Your task to perform on an android device: turn on airplane mode Image 0: 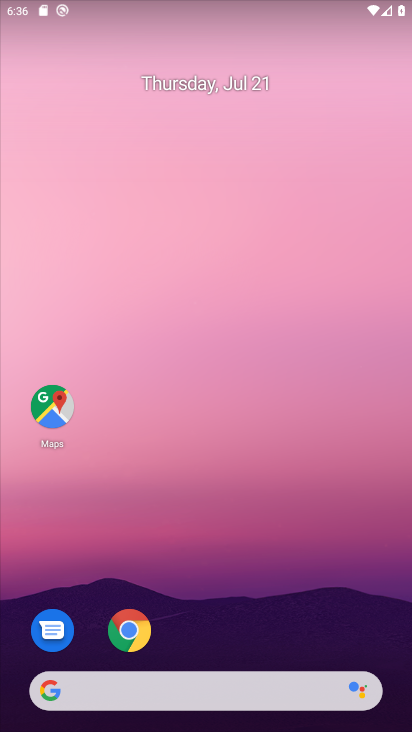
Step 0: drag from (196, 700) to (233, 214)
Your task to perform on an android device: turn on airplane mode Image 1: 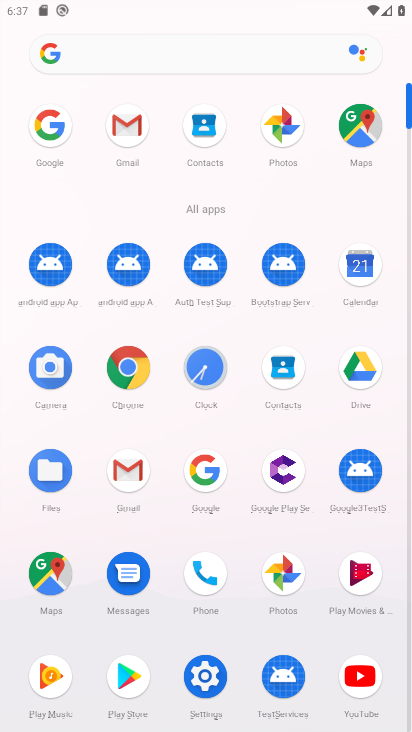
Step 1: drag from (241, 553) to (230, 335)
Your task to perform on an android device: turn on airplane mode Image 2: 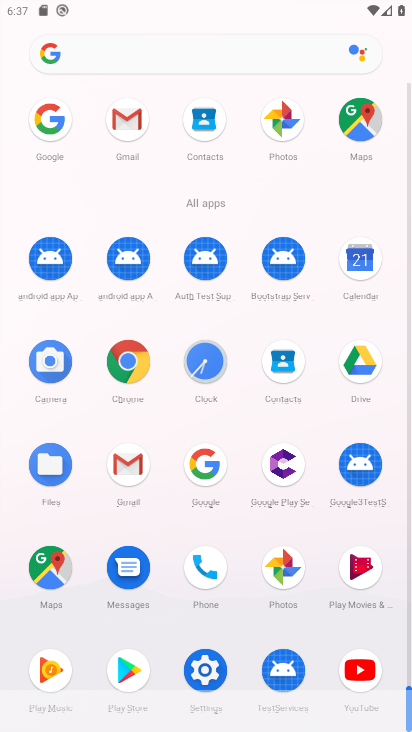
Step 2: click (206, 670)
Your task to perform on an android device: turn on airplane mode Image 3: 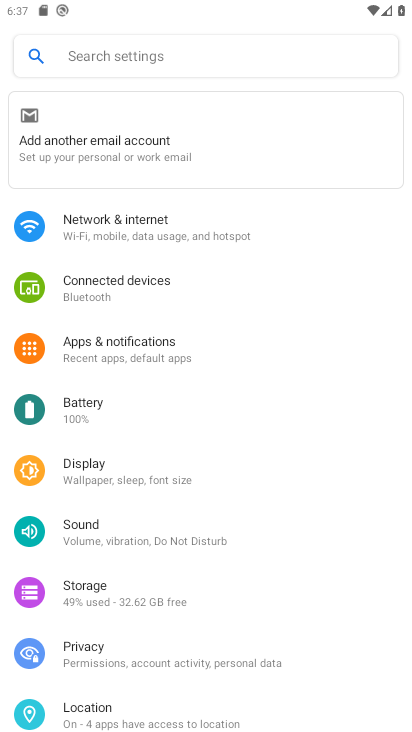
Step 3: click (174, 228)
Your task to perform on an android device: turn on airplane mode Image 4: 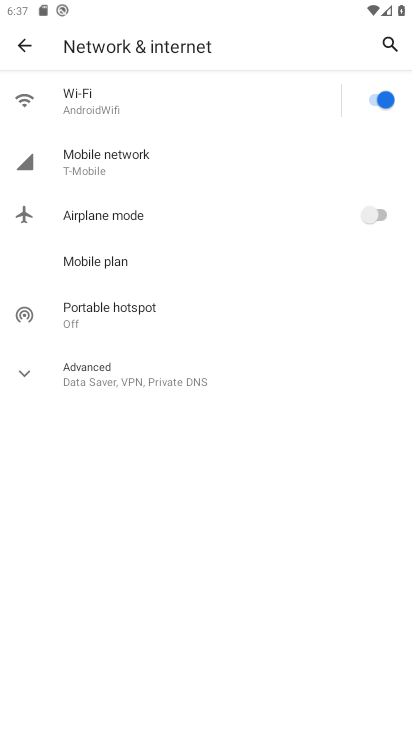
Step 4: click (368, 214)
Your task to perform on an android device: turn on airplane mode Image 5: 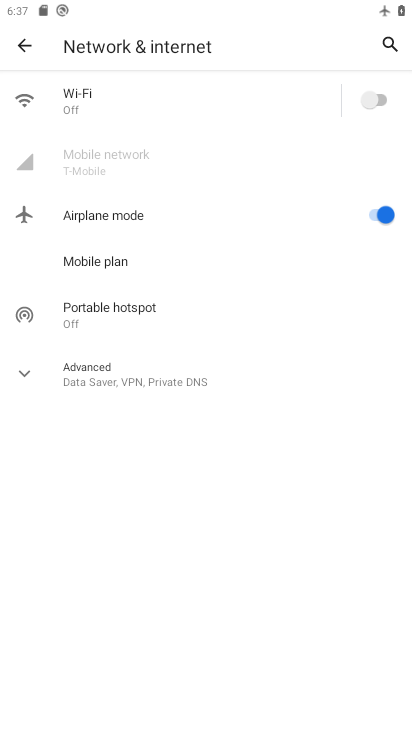
Step 5: task complete